Your task to perform on an android device: Search for hotels in New York Image 0: 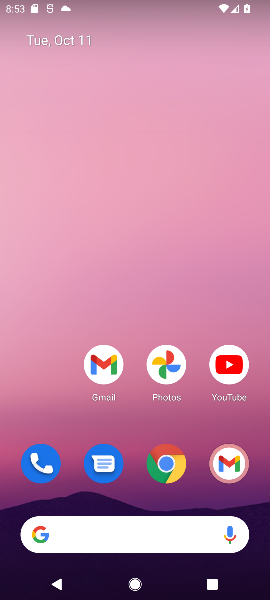
Step 0: drag from (72, 529) to (60, 181)
Your task to perform on an android device: Search for hotels in New York Image 1: 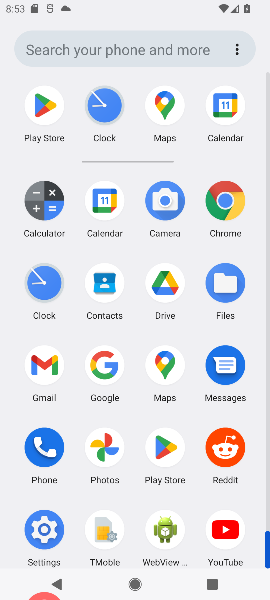
Step 1: click (112, 360)
Your task to perform on an android device: Search for hotels in New York Image 2: 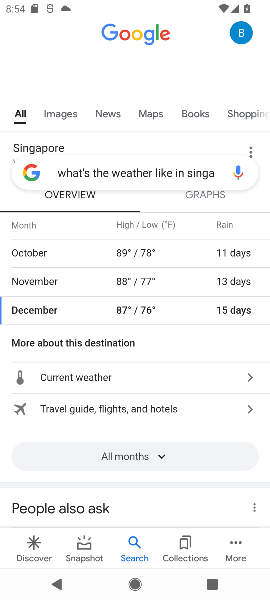
Step 2: task complete